Your task to perform on an android device: see tabs open on other devices in the chrome app Image 0: 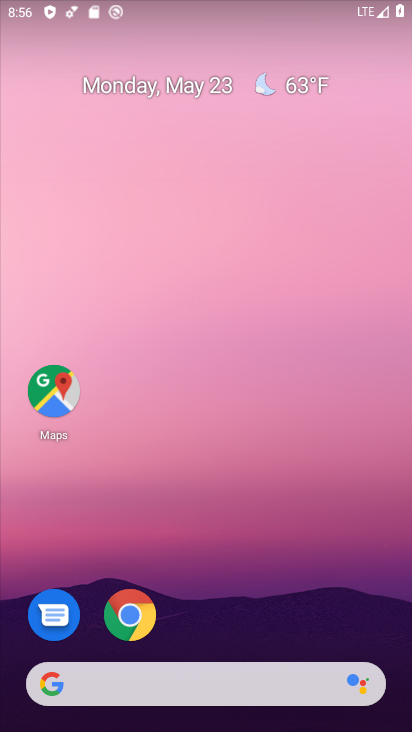
Step 0: click (262, 610)
Your task to perform on an android device: see tabs open on other devices in the chrome app Image 1: 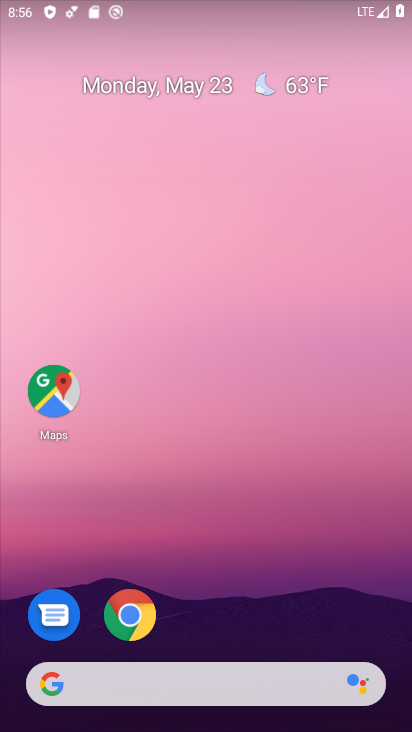
Step 1: click (139, 616)
Your task to perform on an android device: see tabs open on other devices in the chrome app Image 2: 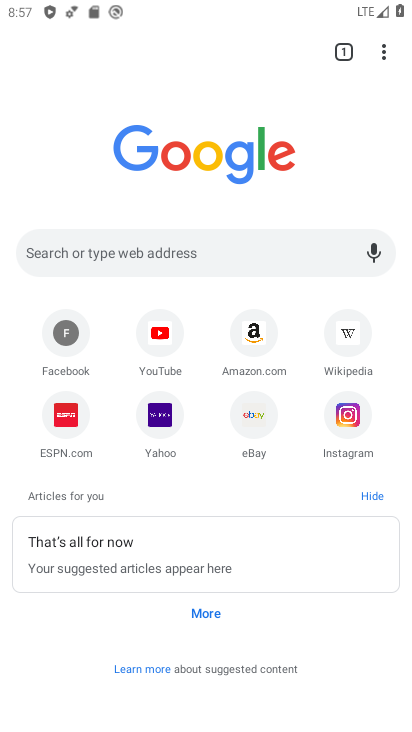
Step 2: click (344, 49)
Your task to perform on an android device: see tabs open on other devices in the chrome app Image 3: 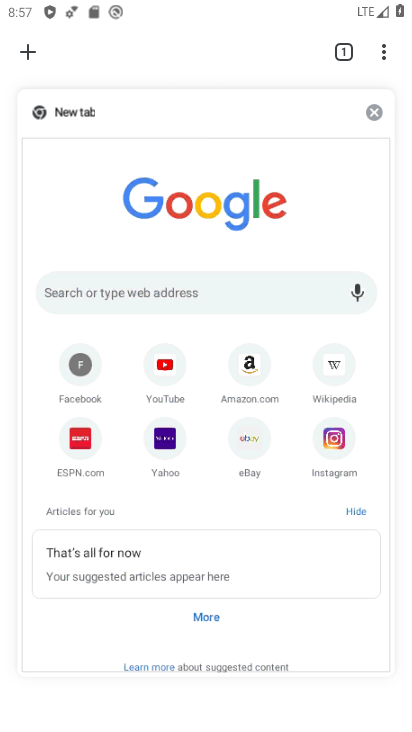
Step 3: task complete